Your task to perform on an android device: change the clock style Image 0: 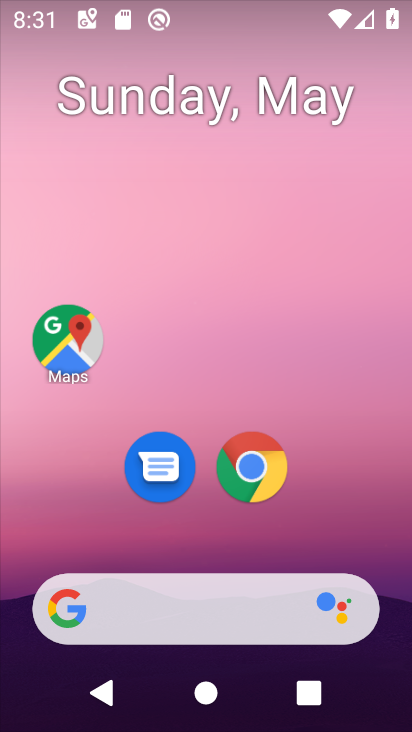
Step 0: drag from (335, 530) to (354, 155)
Your task to perform on an android device: change the clock style Image 1: 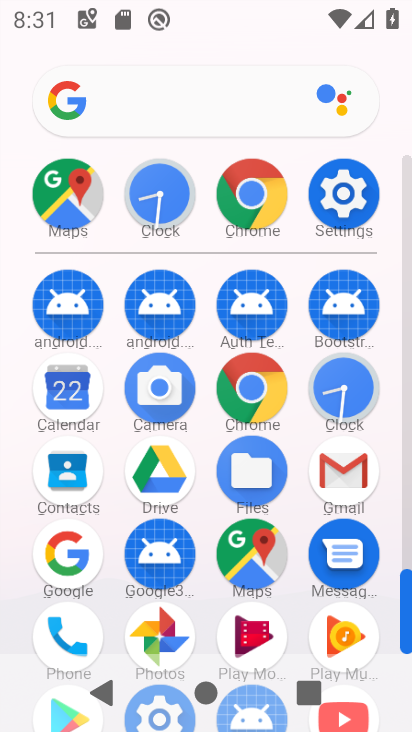
Step 1: click (349, 383)
Your task to perform on an android device: change the clock style Image 2: 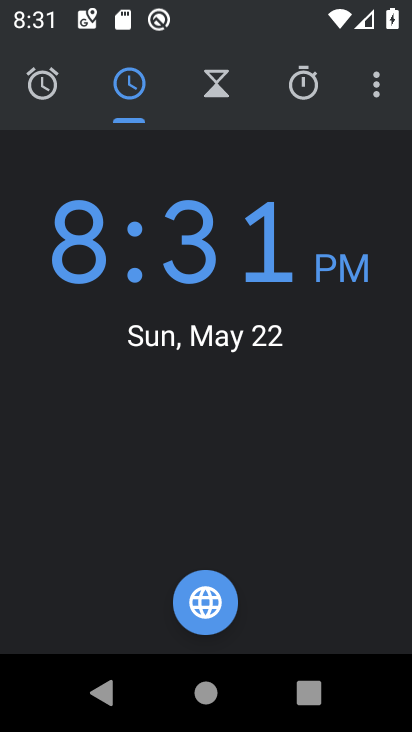
Step 2: click (381, 104)
Your task to perform on an android device: change the clock style Image 3: 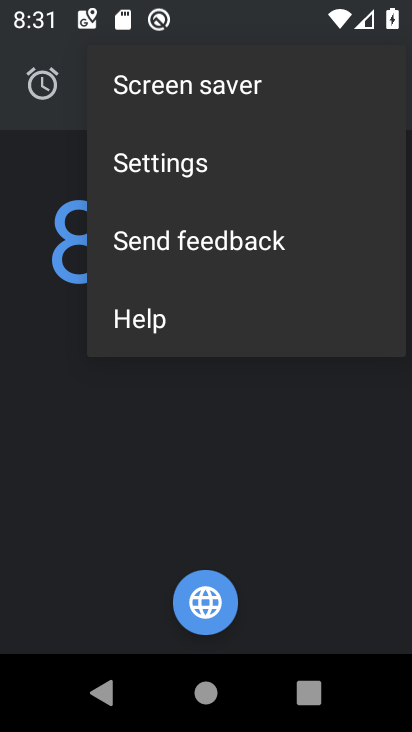
Step 3: click (248, 150)
Your task to perform on an android device: change the clock style Image 4: 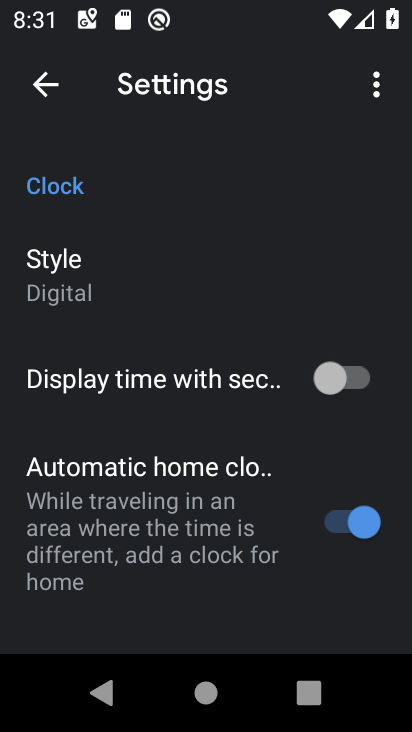
Step 4: click (136, 272)
Your task to perform on an android device: change the clock style Image 5: 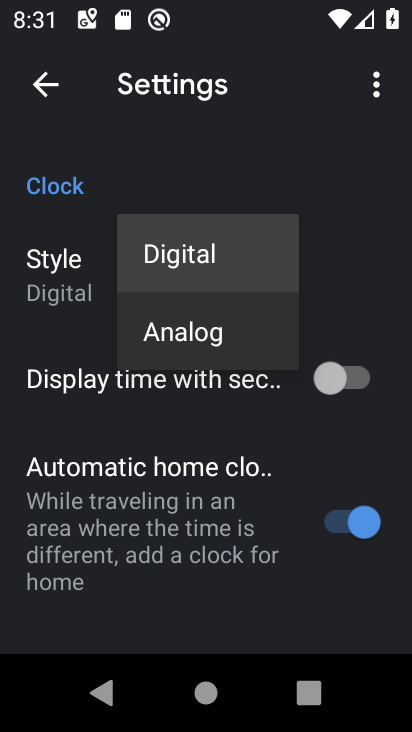
Step 5: click (165, 340)
Your task to perform on an android device: change the clock style Image 6: 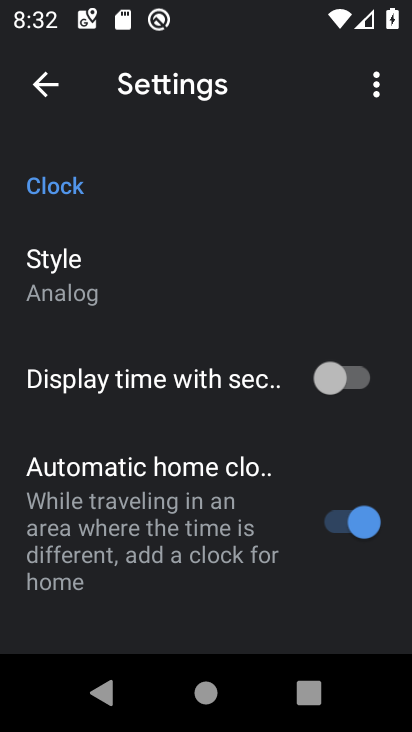
Step 6: task complete